Your task to perform on an android device: Open location settings Image 0: 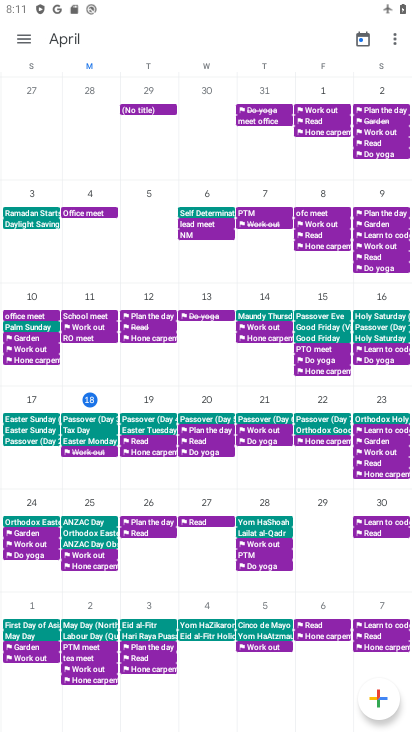
Step 0: press back button
Your task to perform on an android device: Open location settings Image 1: 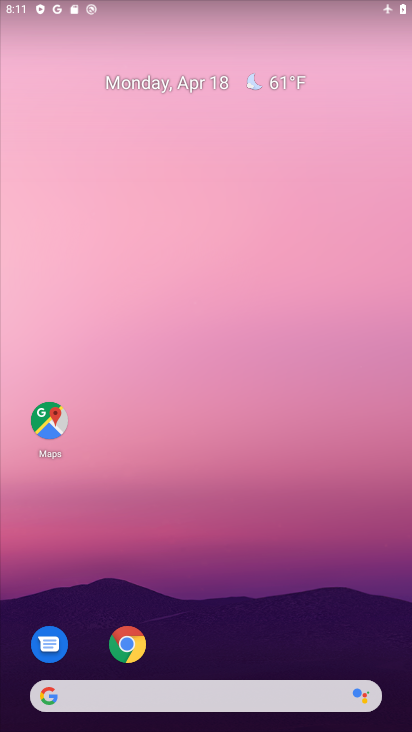
Step 1: drag from (192, 690) to (194, 0)
Your task to perform on an android device: Open location settings Image 2: 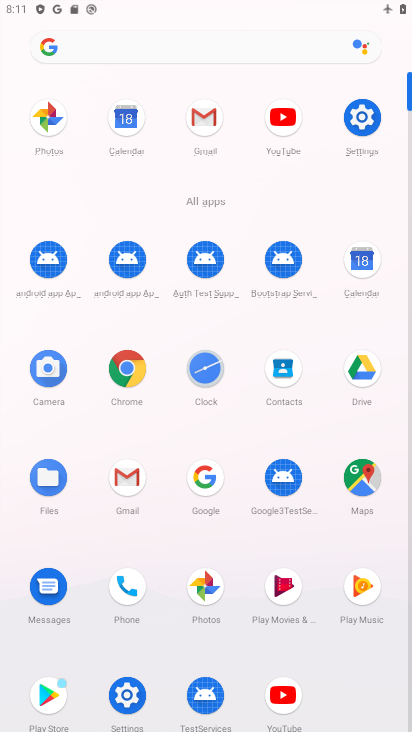
Step 2: click (356, 114)
Your task to perform on an android device: Open location settings Image 3: 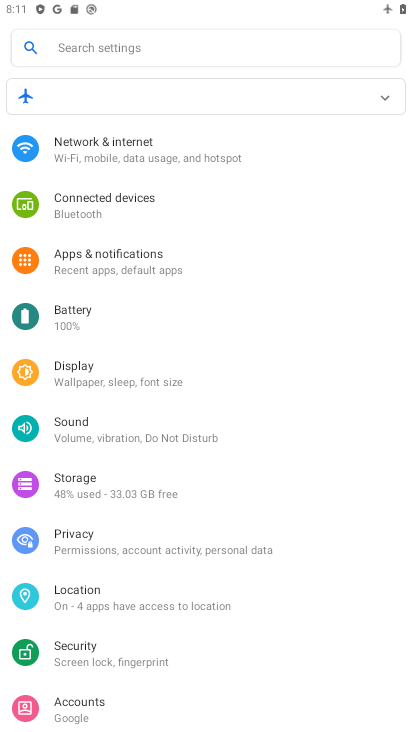
Step 3: click (125, 596)
Your task to perform on an android device: Open location settings Image 4: 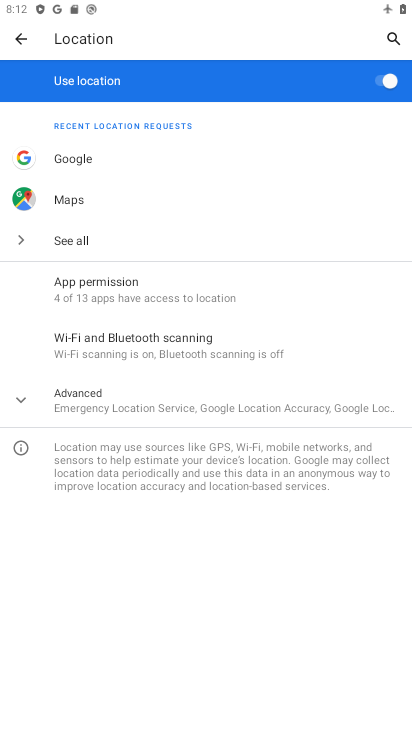
Step 4: task complete